Your task to perform on an android device: snooze an email in the gmail app Image 0: 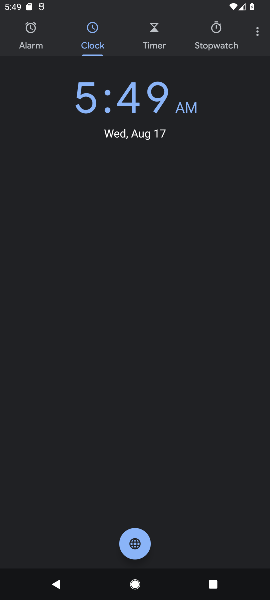
Step 0: press home button
Your task to perform on an android device: snooze an email in the gmail app Image 1: 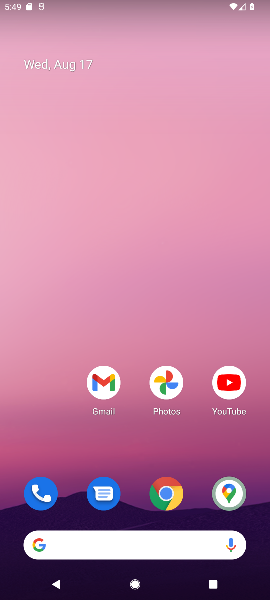
Step 1: click (105, 382)
Your task to perform on an android device: snooze an email in the gmail app Image 2: 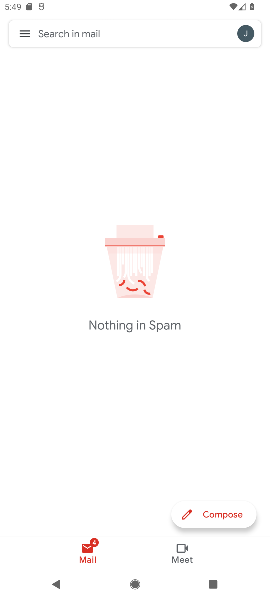
Step 2: click (27, 36)
Your task to perform on an android device: snooze an email in the gmail app Image 3: 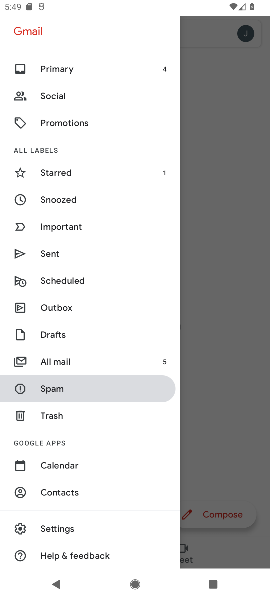
Step 3: click (58, 364)
Your task to perform on an android device: snooze an email in the gmail app Image 4: 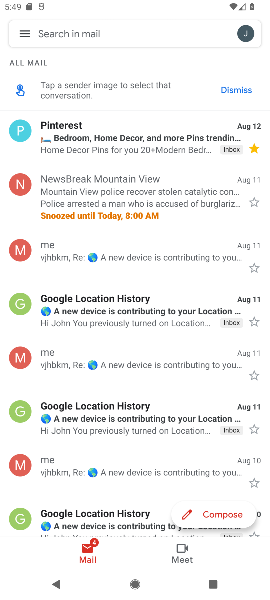
Step 4: click (104, 155)
Your task to perform on an android device: snooze an email in the gmail app Image 5: 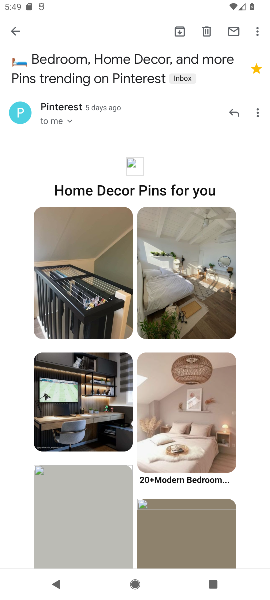
Step 5: click (259, 27)
Your task to perform on an android device: snooze an email in the gmail app Image 6: 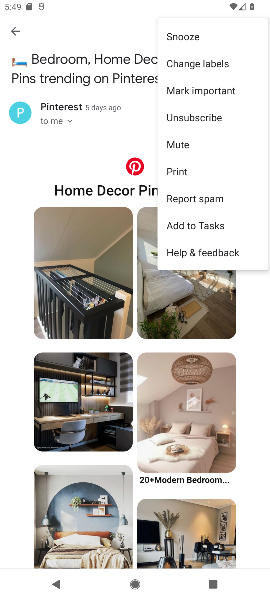
Step 6: click (181, 39)
Your task to perform on an android device: snooze an email in the gmail app Image 7: 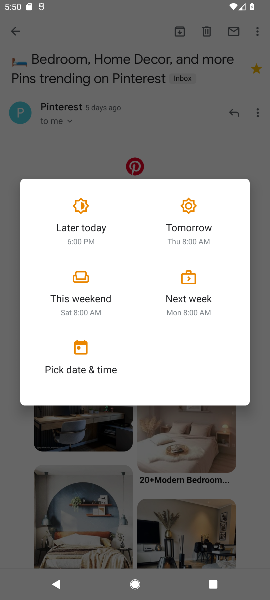
Step 7: click (84, 227)
Your task to perform on an android device: snooze an email in the gmail app Image 8: 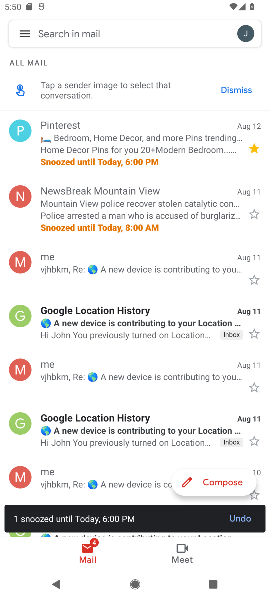
Step 8: task complete